Your task to perform on an android device: Open maps Image 0: 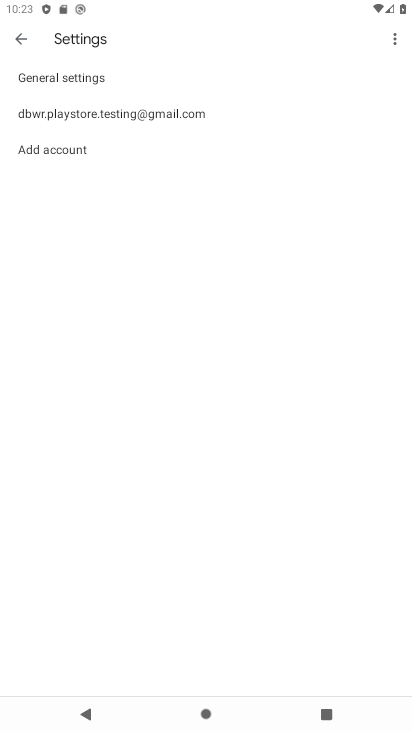
Step 0: press home button
Your task to perform on an android device: Open maps Image 1: 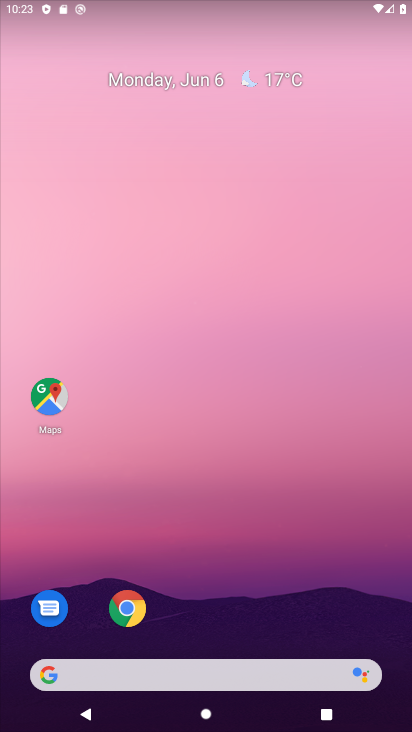
Step 1: drag from (243, 693) to (214, 195)
Your task to perform on an android device: Open maps Image 2: 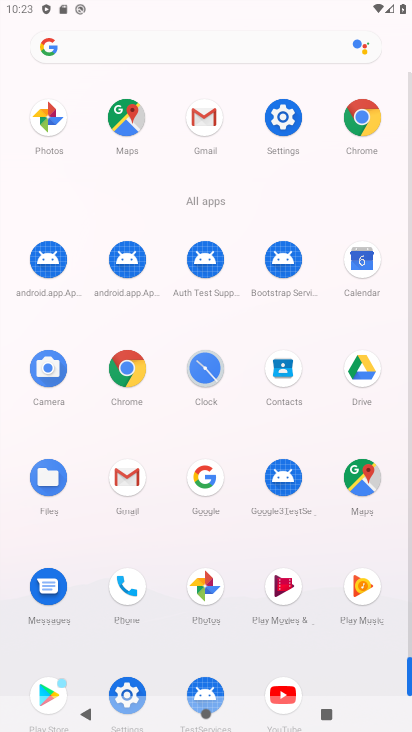
Step 2: click (372, 483)
Your task to perform on an android device: Open maps Image 3: 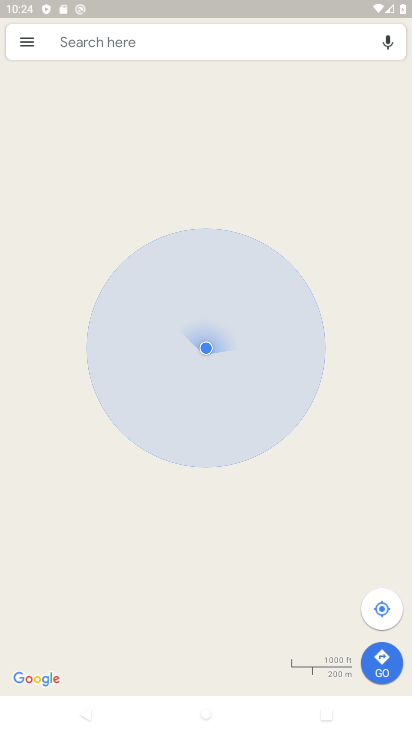
Step 3: task complete